Your task to perform on an android device: Open the map Image 0: 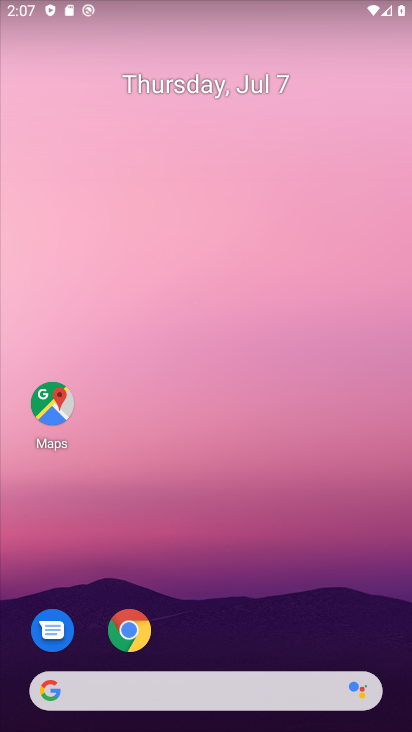
Step 0: drag from (180, 706) to (40, 4)
Your task to perform on an android device: Open the map Image 1: 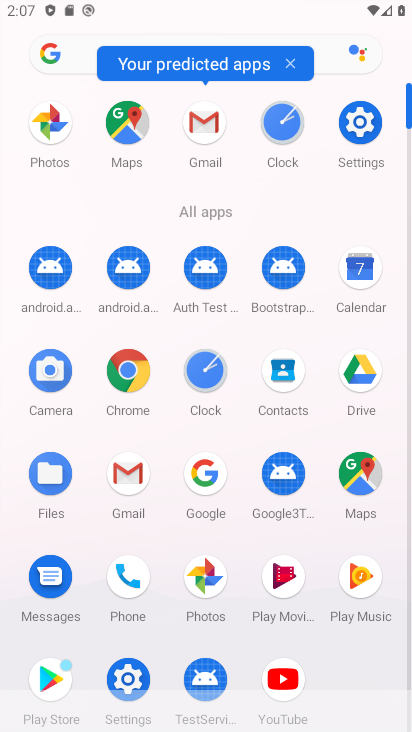
Step 1: click (131, 126)
Your task to perform on an android device: Open the map Image 2: 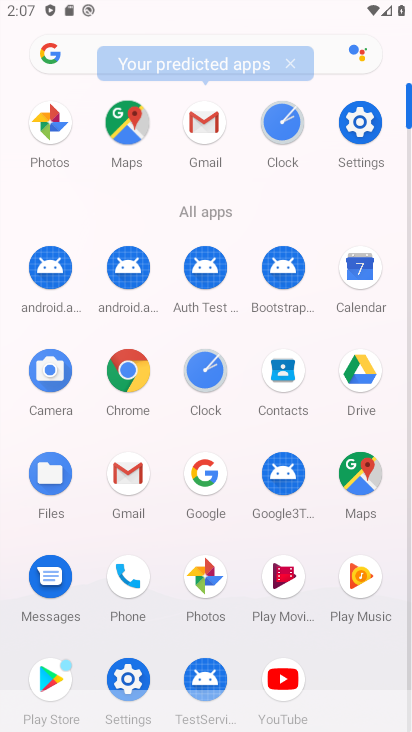
Step 2: click (131, 126)
Your task to perform on an android device: Open the map Image 3: 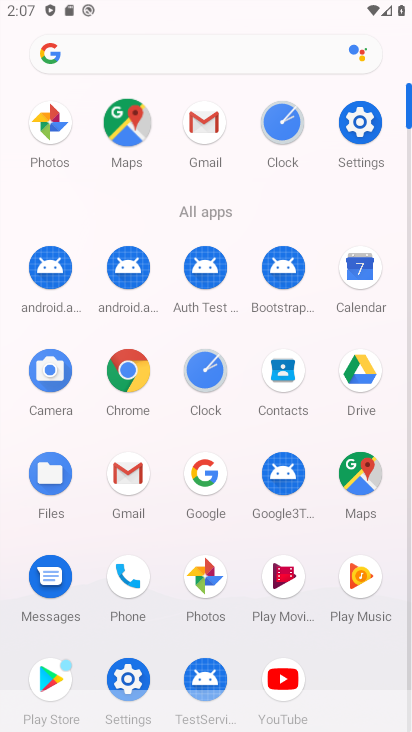
Step 3: click (121, 139)
Your task to perform on an android device: Open the map Image 4: 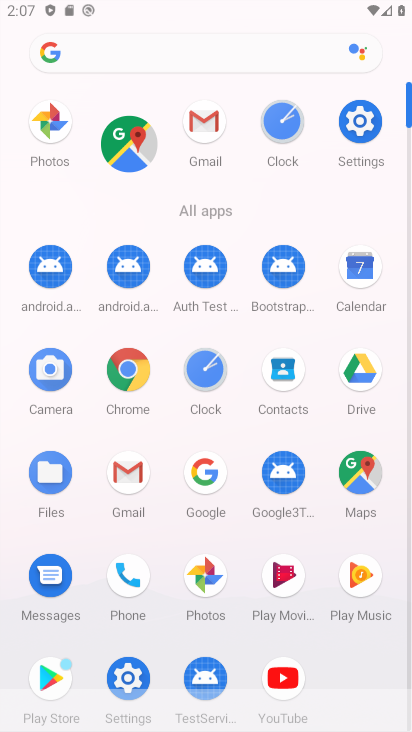
Step 4: click (121, 139)
Your task to perform on an android device: Open the map Image 5: 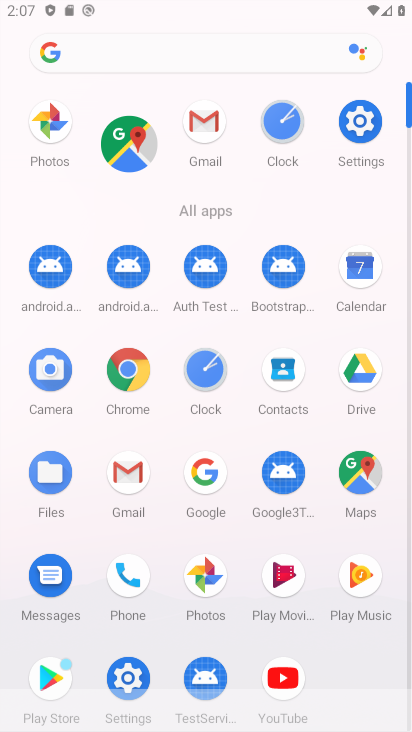
Step 5: click (120, 140)
Your task to perform on an android device: Open the map Image 6: 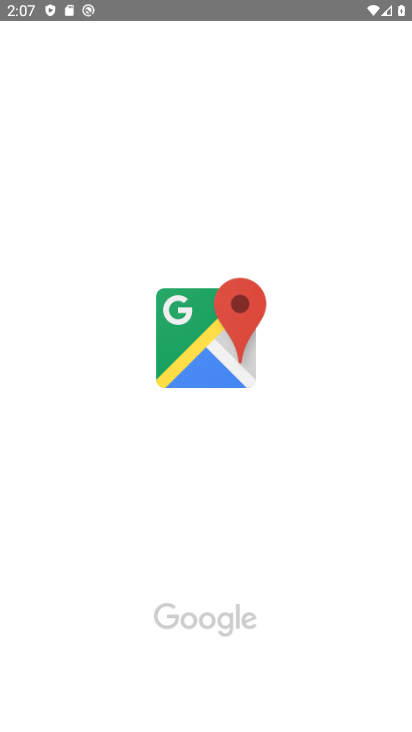
Step 6: click (121, 139)
Your task to perform on an android device: Open the map Image 7: 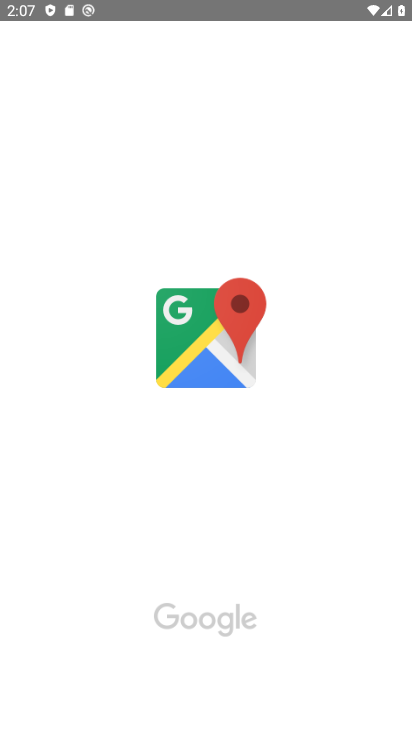
Step 7: click (123, 140)
Your task to perform on an android device: Open the map Image 8: 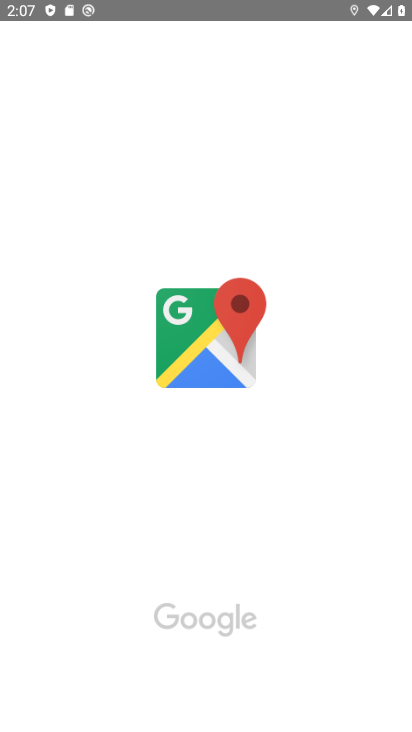
Step 8: click (203, 322)
Your task to perform on an android device: Open the map Image 9: 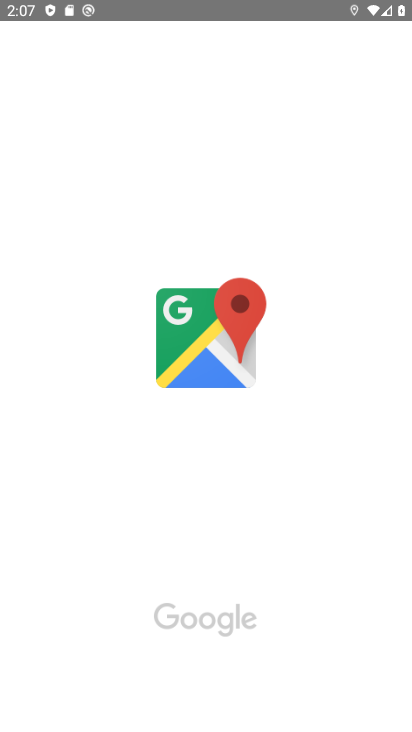
Step 9: click (208, 325)
Your task to perform on an android device: Open the map Image 10: 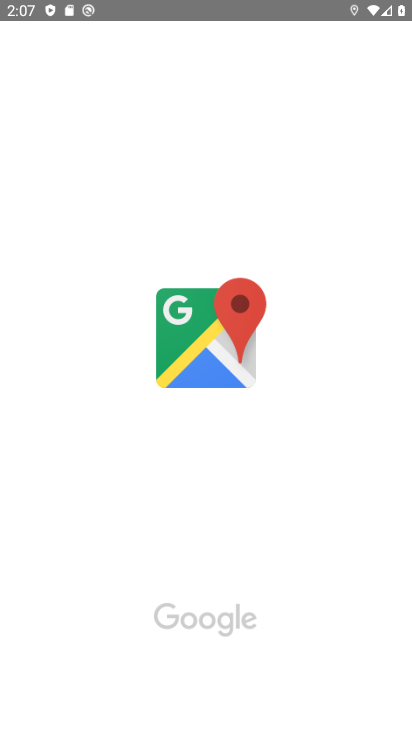
Step 10: click (212, 325)
Your task to perform on an android device: Open the map Image 11: 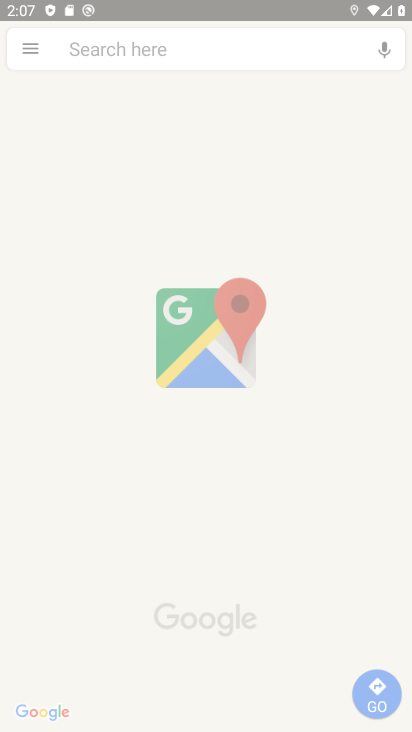
Step 11: click (216, 327)
Your task to perform on an android device: Open the map Image 12: 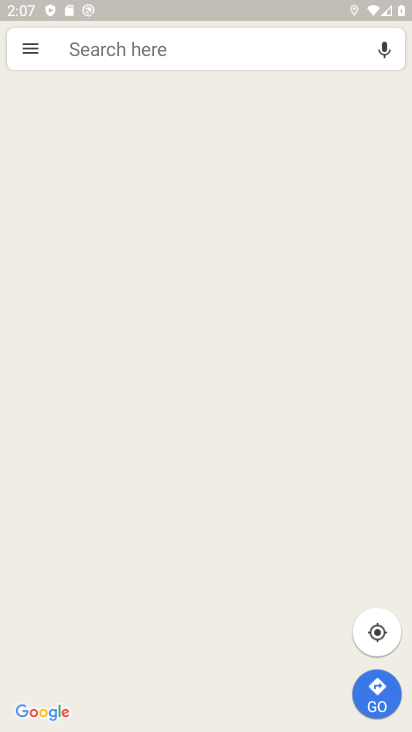
Step 12: click (214, 327)
Your task to perform on an android device: Open the map Image 13: 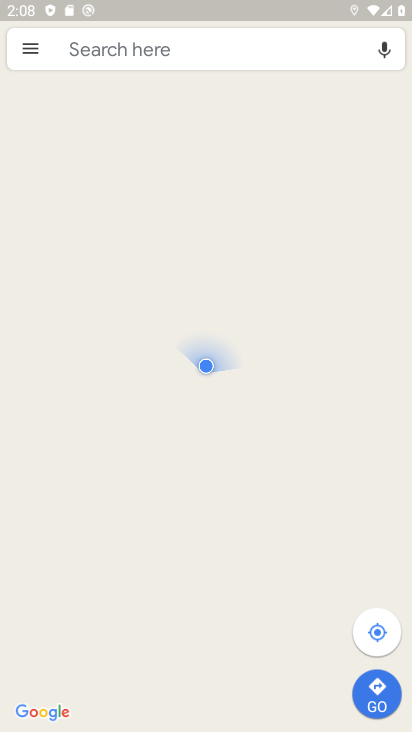
Step 13: task complete